Your task to perform on an android device: change the clock display to show seconds Image 0: 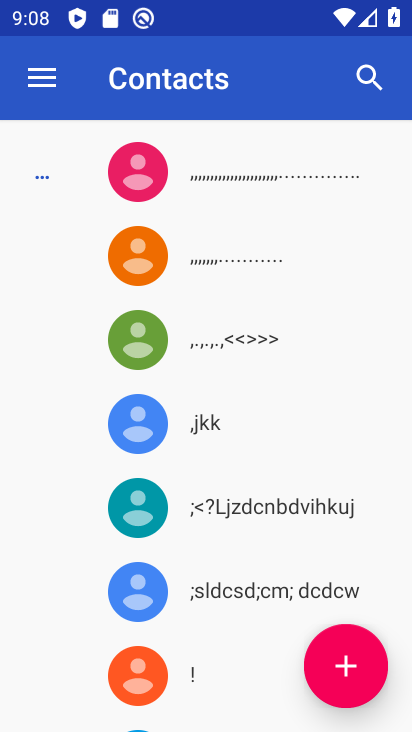
Step 0: press home button
Your task to perform on an android device: change the clock display to show seconds Image 1: 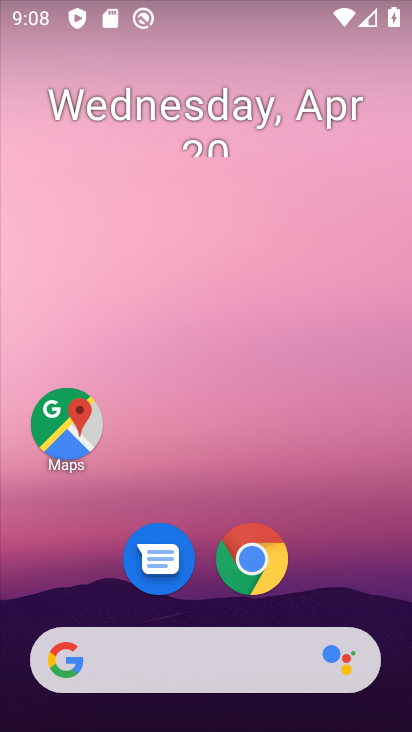
Step 1: drag from (196, 561) to (197, 261)
Your task to perform on an android device: change the clock display to show seconds Image 2: 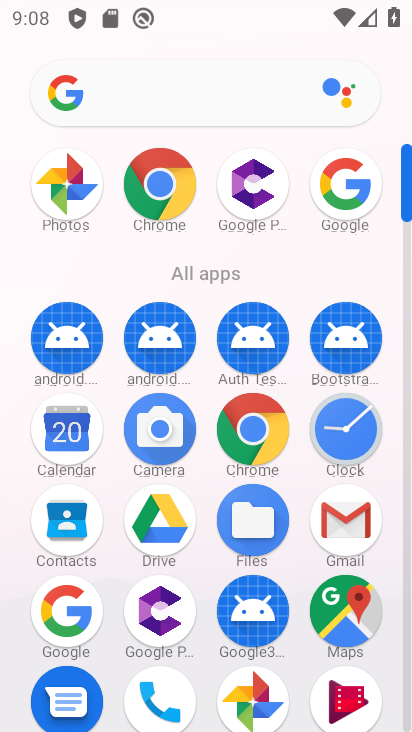
Step 2: click (335, 416)
Your task to perform on an android device: change the clock display to show seconds Image 3: 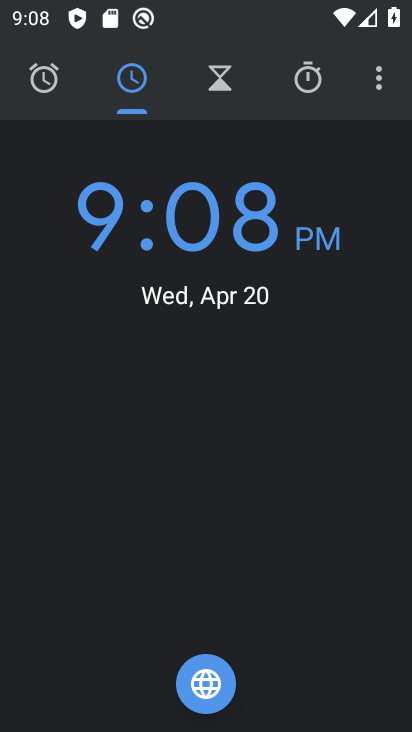
Step 3: click (375, 88)
Your task to perform on an android device: change the clock display to show seconds Image 4: 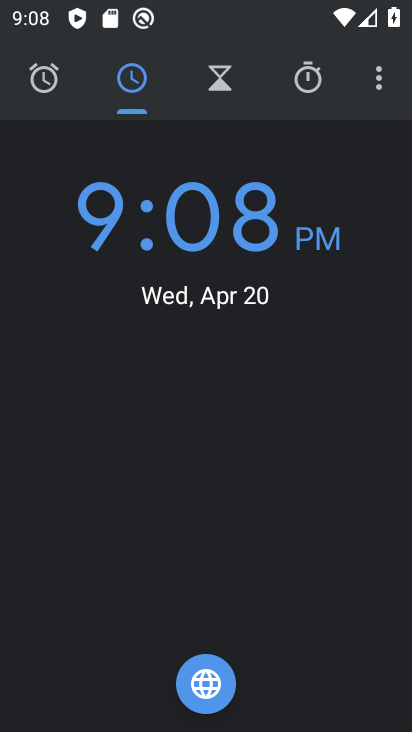
Step 4: click (383, 91)
Your task to perform on an android device: change the clock display to show seconds Image 5: 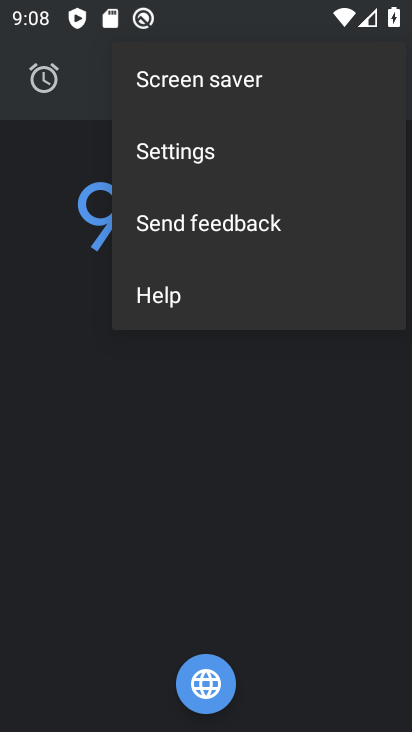
Step 5: click (126, 162)
Your task to perform on an android device: change the clock display to show seconds Image 6: 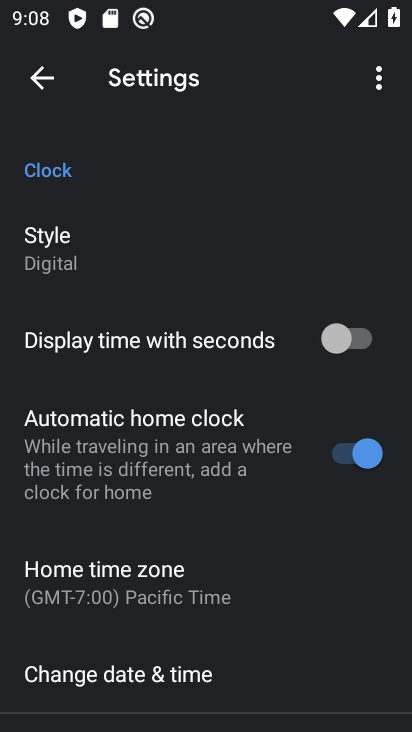
Step 6: click (367, 342)
Your task to perform on an android device: change the clock display to show seconds Image 7: 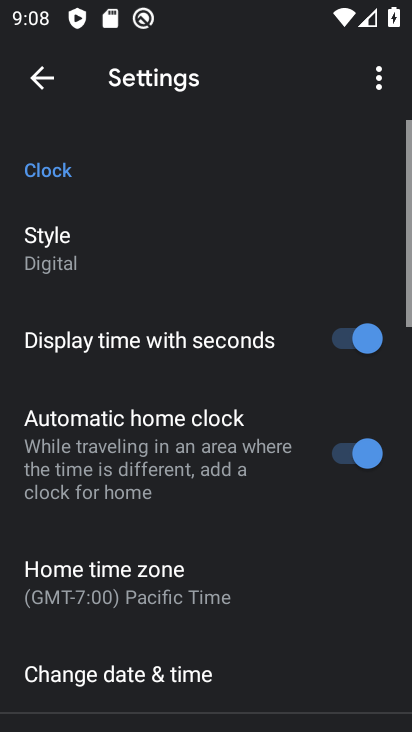
Step 7: task complete